Your task to perform on an android device: set an alarm Image 0: 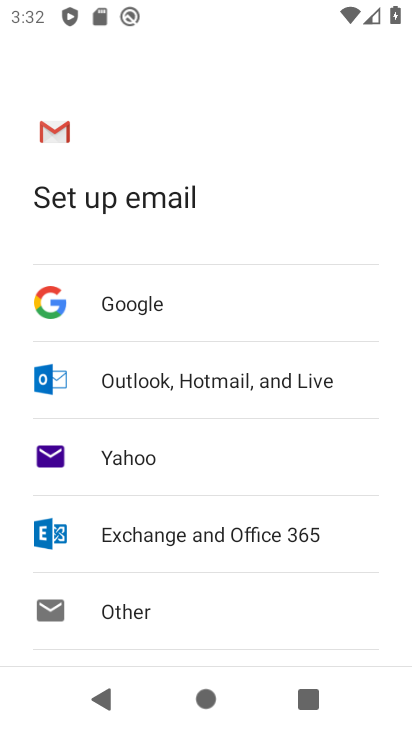
Step 0: press home button
Your task to perform on an android device: set an alarm Image 1: 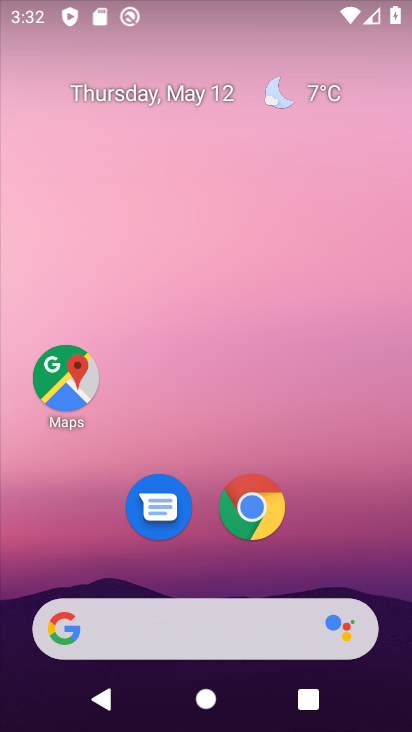
Step 1: drag from (196, 596) to (348, 22)
Your task to perform on an android device: set an alarm Image 2: 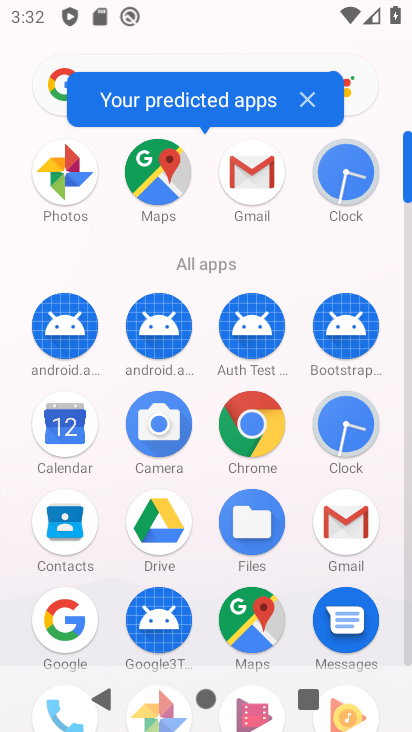
Step 2: click (342, 409)
Your task to perform on an android device: set an alarm Image 3: 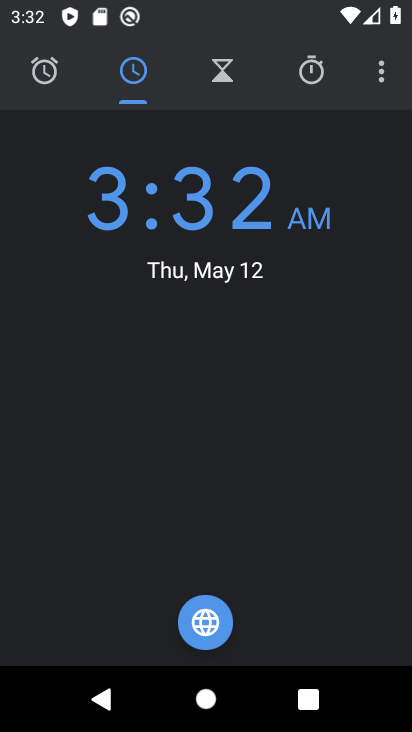
Step 3: click (31, 70)
Your task to perform on an android device: set an alarm Image 4: 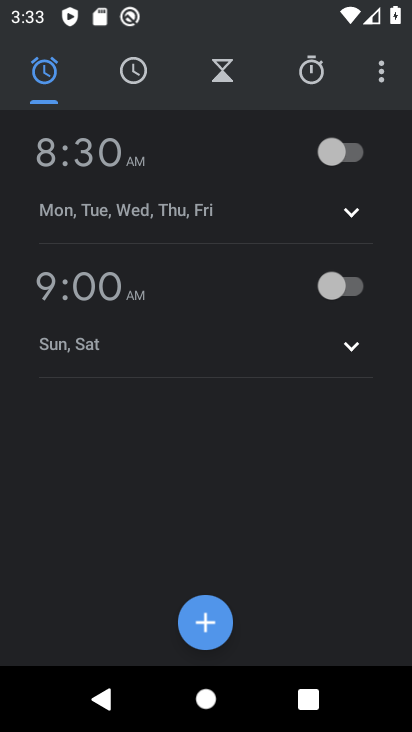
Step 4: click (352, 152)
Your task to perform on an android device: set an alarm Image 5: 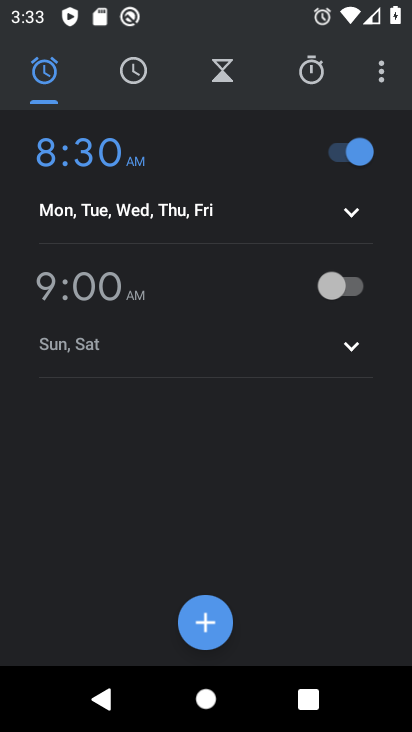
Step 5: task complete